Your task to perform on an android device: What's the weather? Image 0: 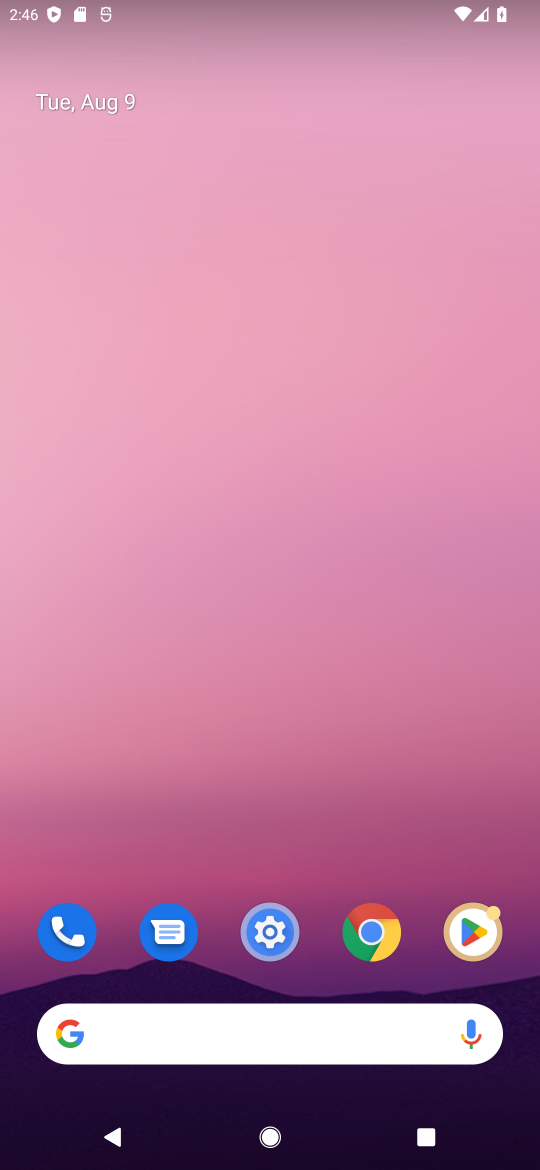
Step 0: click (159, 1026)
Your task to perform on an android device: What's the weather? Image 1: 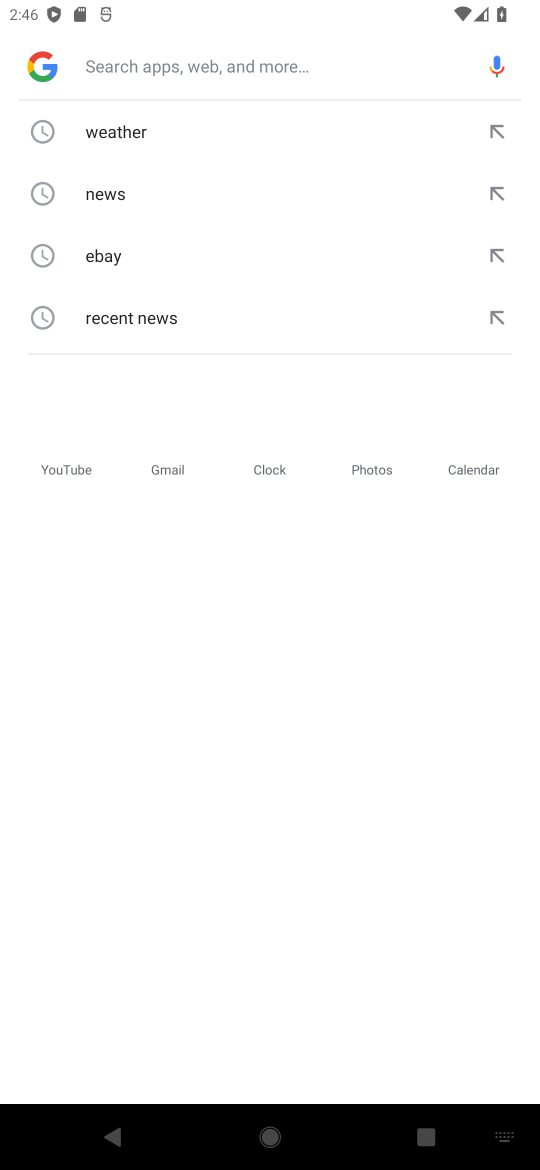
Step 1: type "What's the weather?"
Your task to perform on an android device: What's the weather? Image 2: 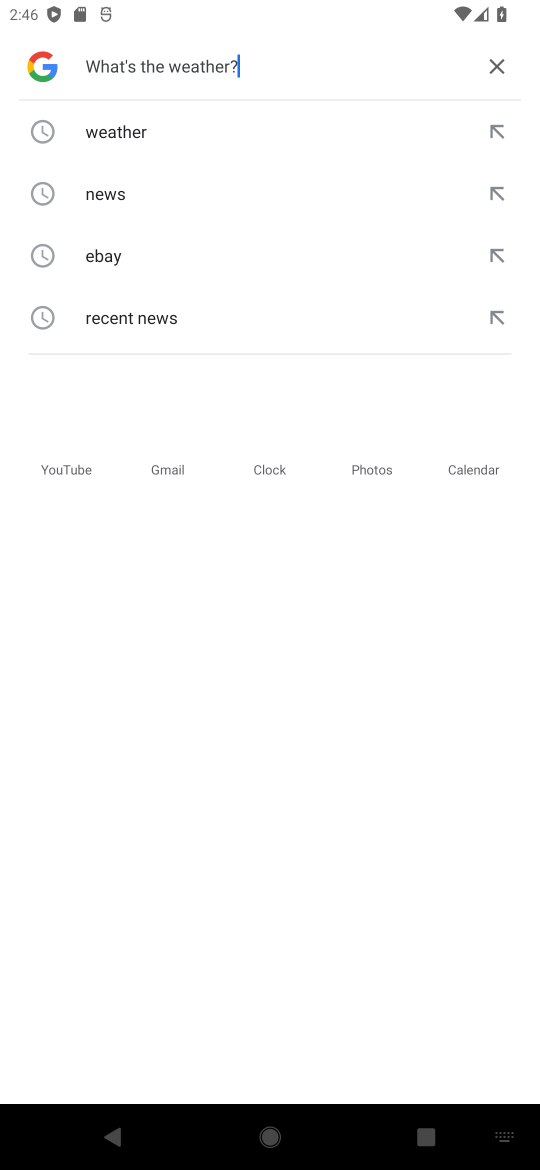
Step 2: type ""
Your task to perform on an android device: What's the weather? Image 3: 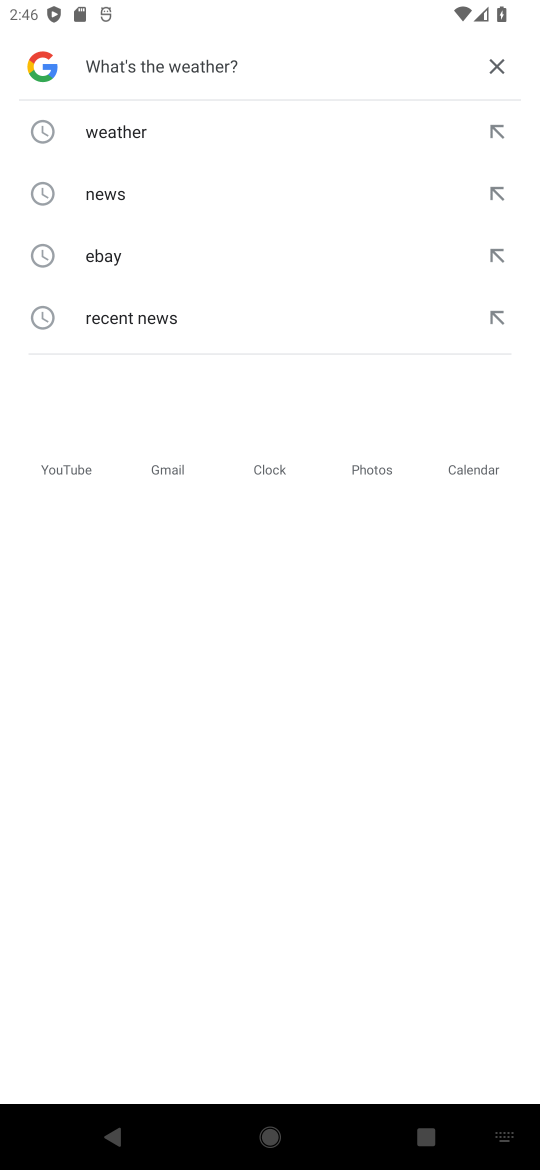
Step 3: type ""
Your task to perform on an android device: What's the weather? Image 4: 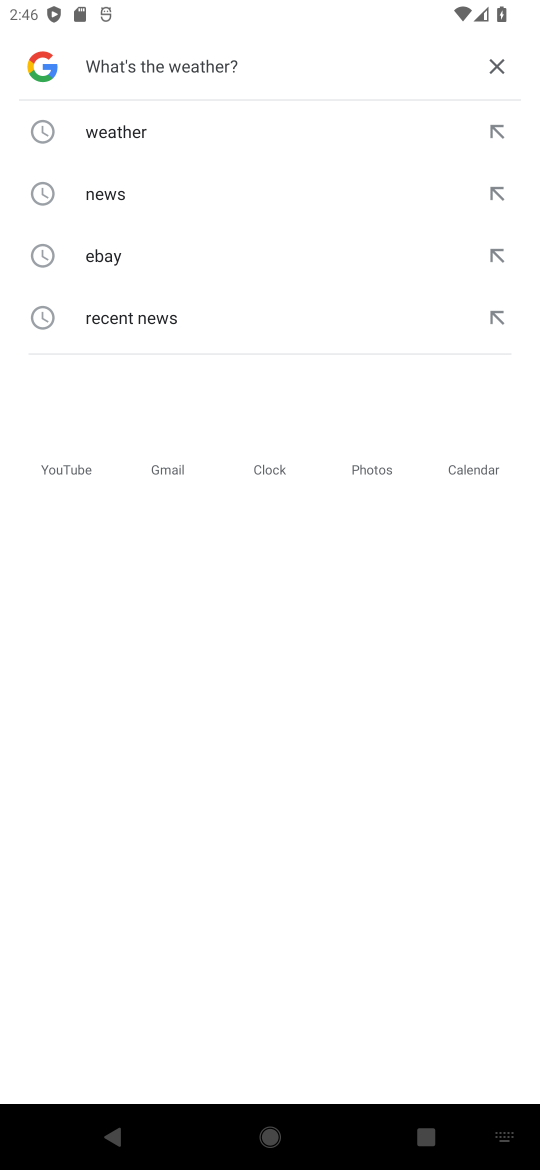
Step 4: task complete